Your task to perform on an android device: change the clock style Image 0: 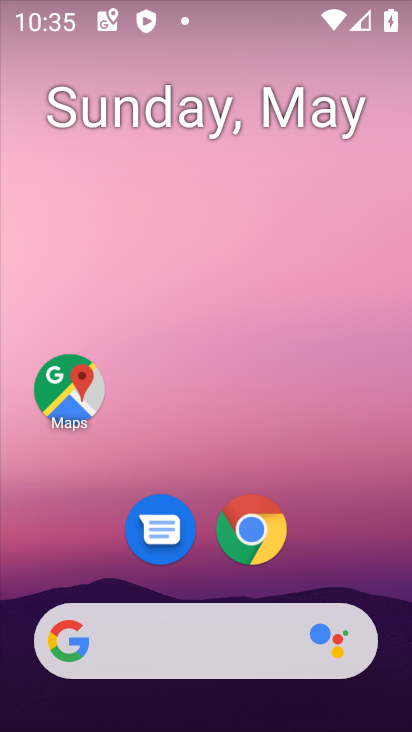
Step 0: drag from (265, 535) to (195, 23)
Your task to perform on an android device: change the clock style Image 1: 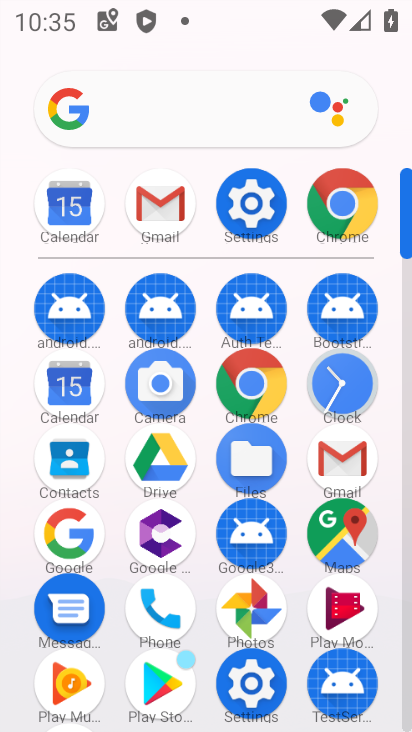
Step 1: click (329, 398)
Your task to perform on an android device: change the clock style Image 2: 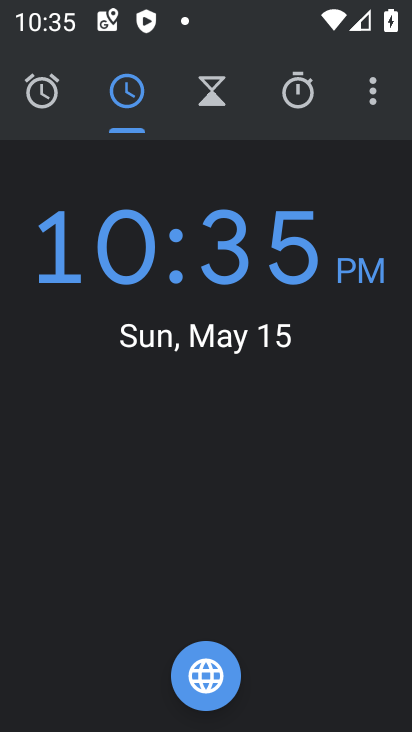
Step 2: click (365, 82)
Your task to perform on an android device: change the clock style Image 3: 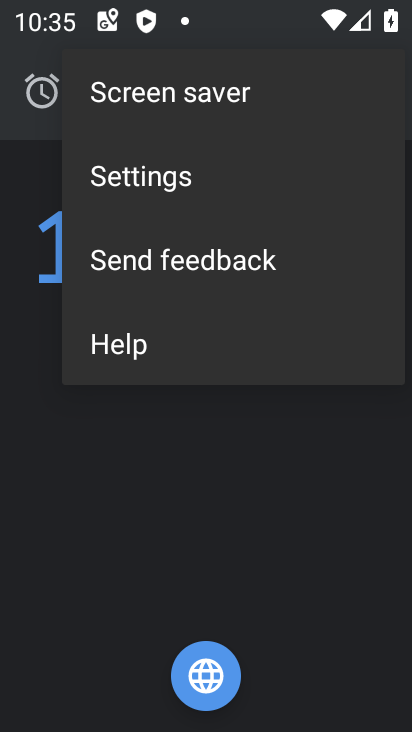
Step 3: click (227, 160)
Your task to perform on an android device: change the clock style Image 4: 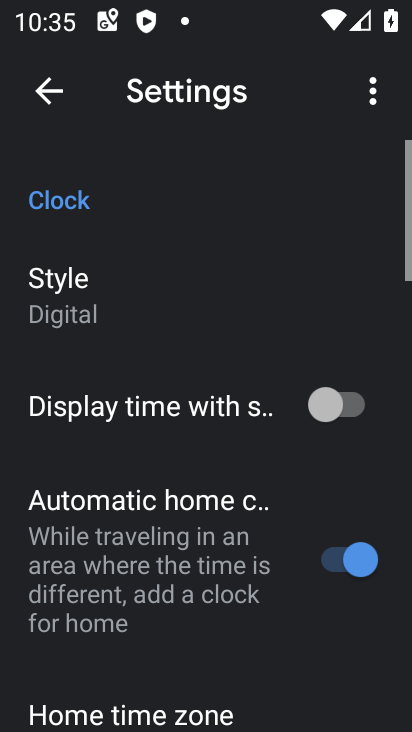
Step 4: click (100, 289)
Your task to perform on an android device: change the clock style Image 5: 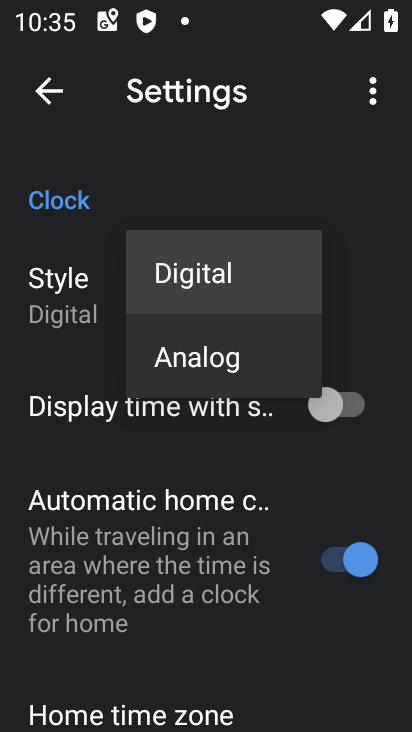
Step 5: click (193, 395)
Your task to perform on an android device: change the clock style Image 6: 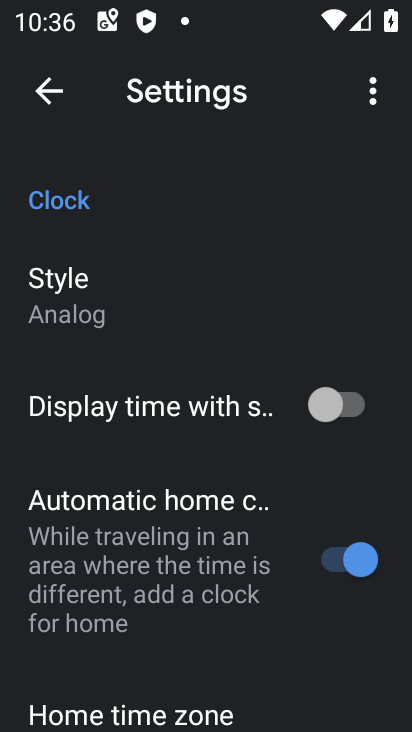
Step 6: task complete